Your task to perform on an android device: change the clock style Image 0: 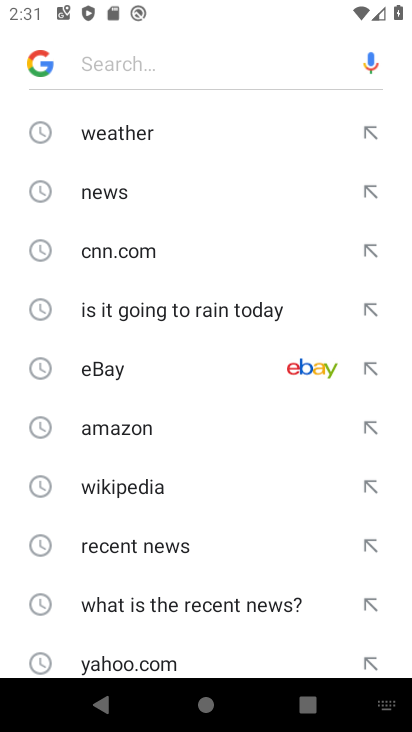
Step 0: press home button
Your task to perform on an android device: change the clock style Image 1: 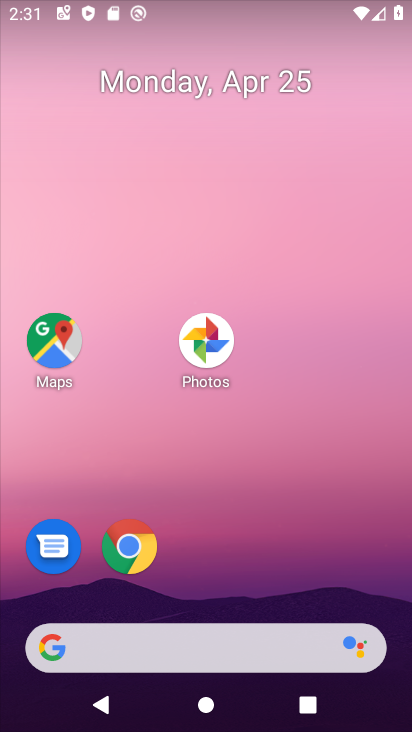
Step 1: drag from (271, 503) to (296, 174)
Your task to perform on an android device: change the clock style Image 2: 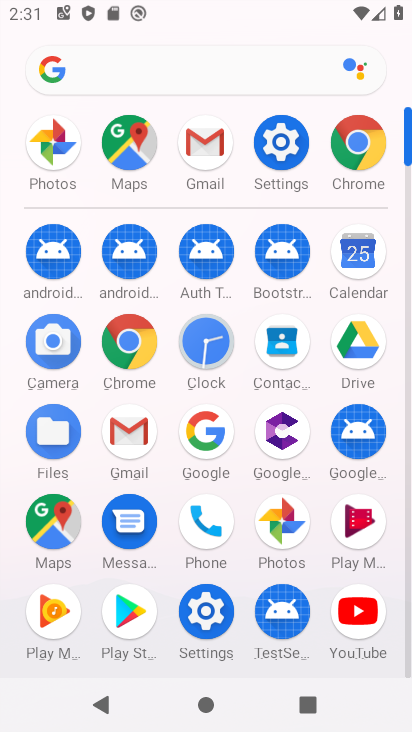
Step 2: click (206, 338)
Your task to perform on an android device: change the clock style Image 3: 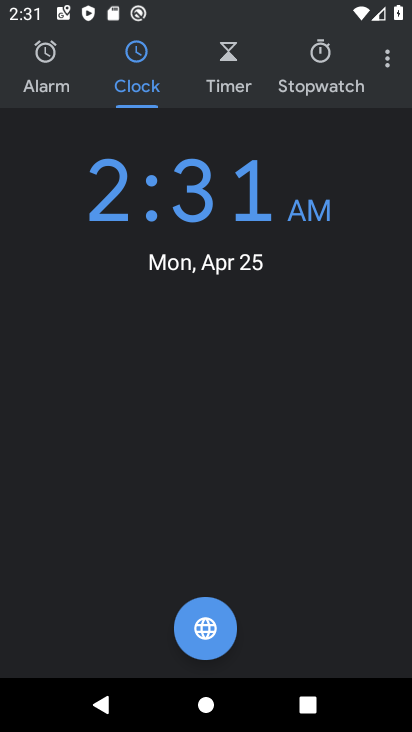
Step 3: click (383, 55)
Your task to perform on an android device: change the clock style Image 4: 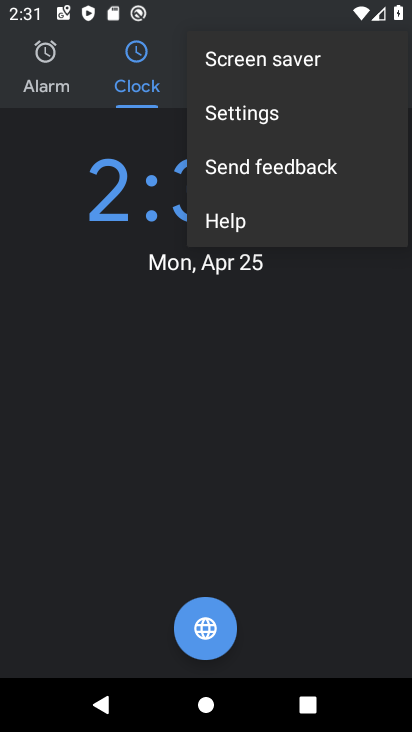
Step 4: click (277, 110)
Your task to perform on an android device: change the clock style Image 5: 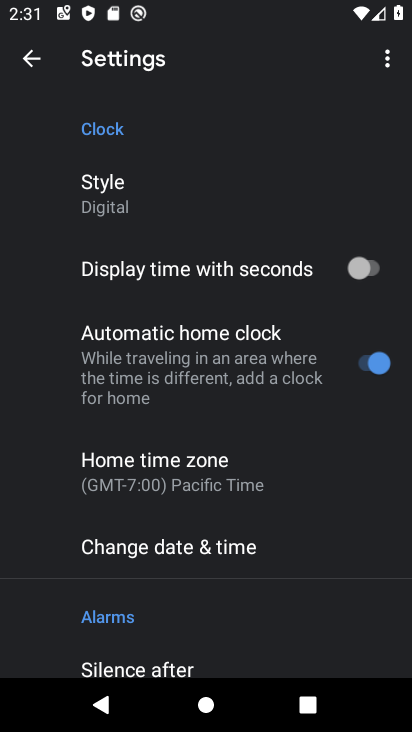
Step 5: click (98, 198)
Your task to perform on an android device: change the clock style Image 6: 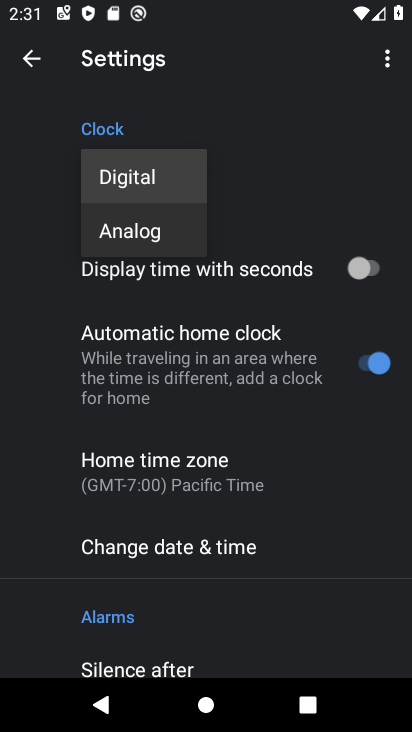
Step 6: click (103, 233)
Your task to perform on an android device: change the clock style Image 7: 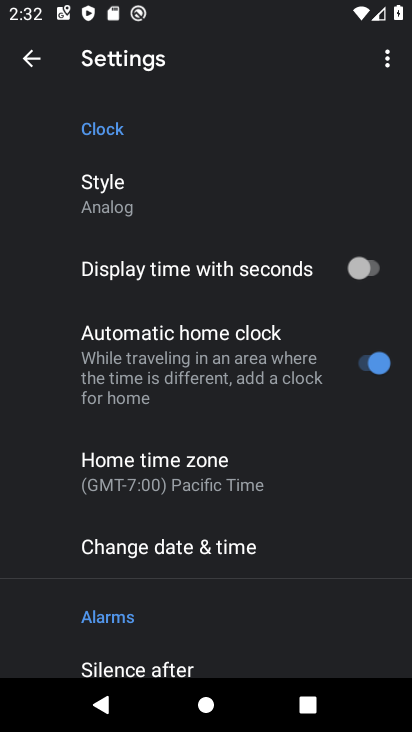
Step 7: task complete